Your task to perform on an android device: open app "Firefox Browser" (install if not already installed) Image 0: 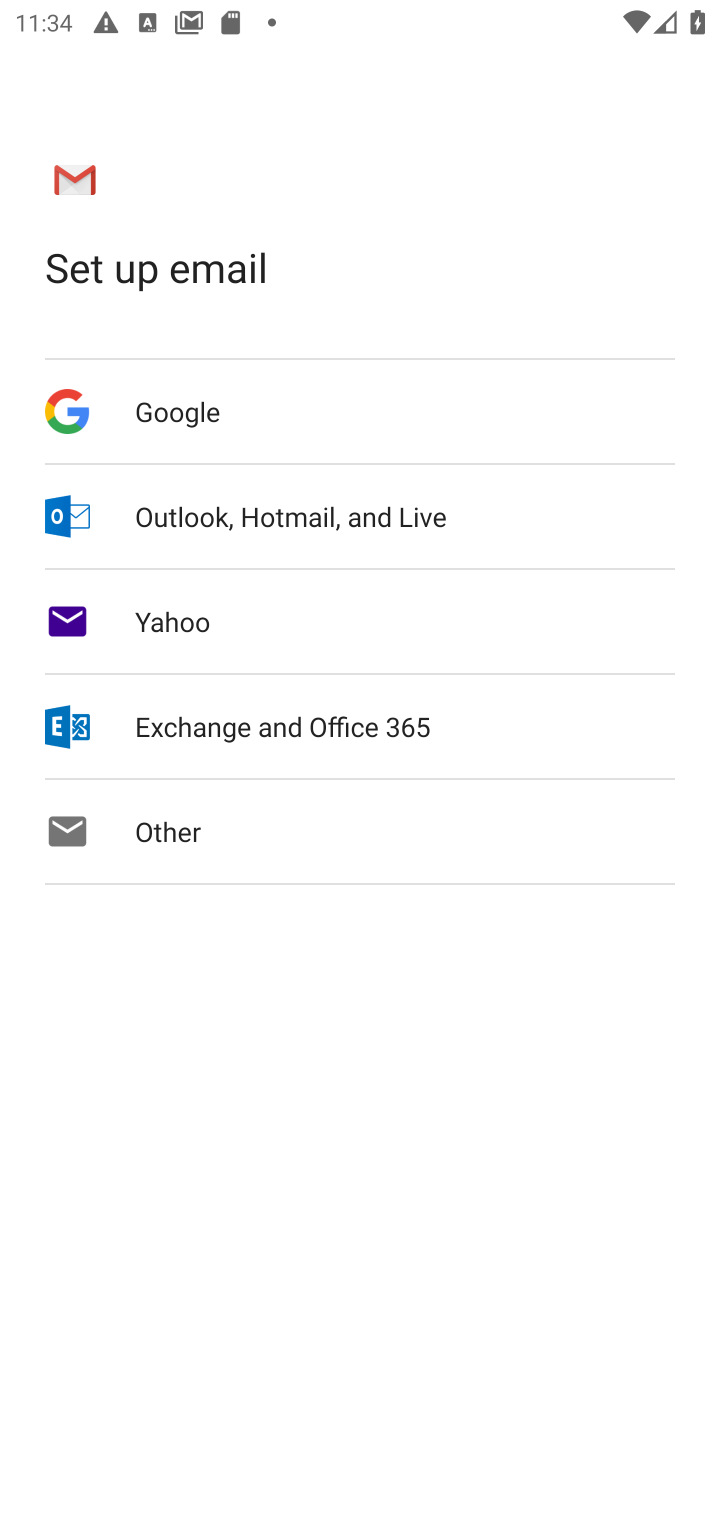
Step 0: press home button
Your task to perform on an android device: open app "Firefox Browser" (install if not already installed) Image 1: 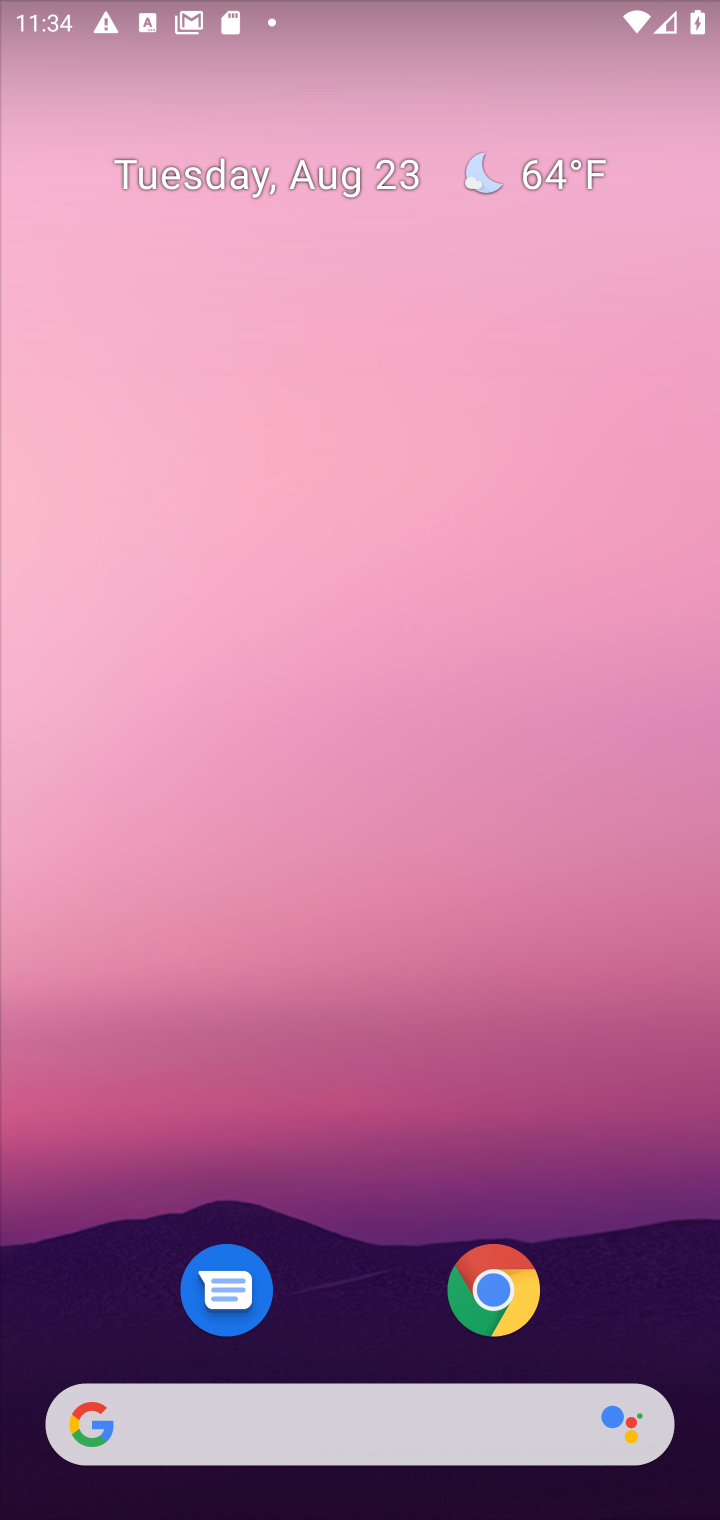
Step 1: drag from (338, 825) to (342, 10)
Your task to perform on an android device: open app "Firefox Browser" (install if not already installed) Image 2: 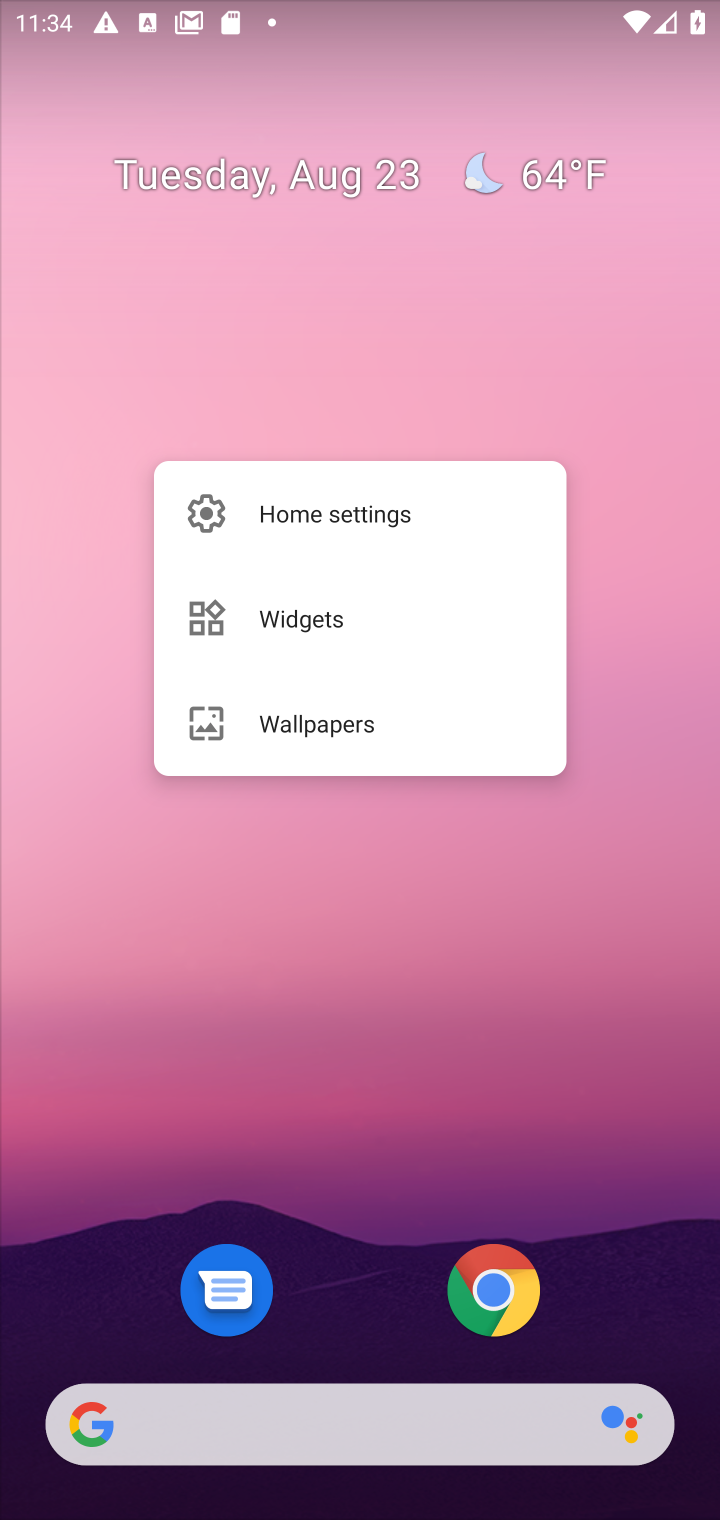
Step 2: click (463, 972)
Your task to perform on an android device: open app "Firefox Browser" (install if not already installed) Image 3: 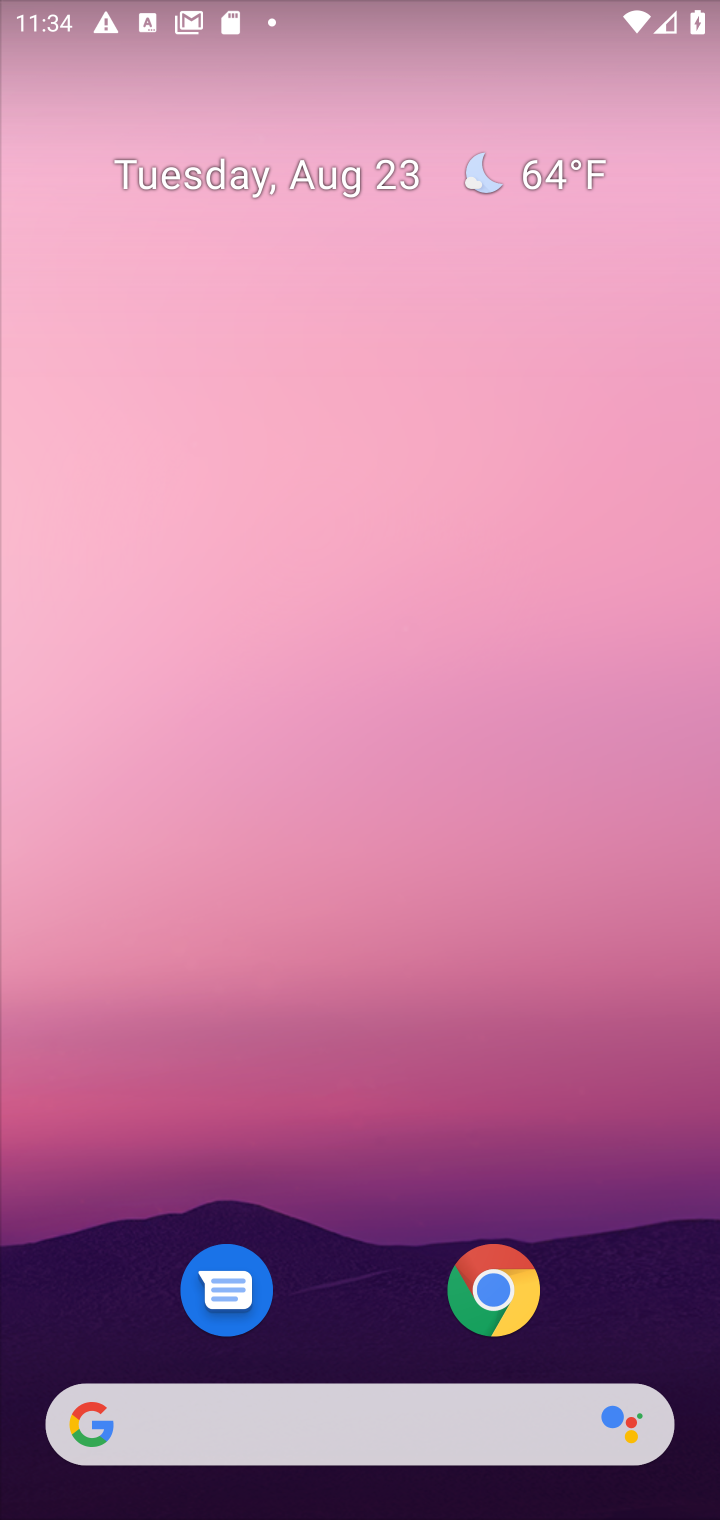
Step 3: drag from (372, 1248) to (399, 7)
Your task to perform on an android device: open app "Firefox Browser" (install if not already installed) Image 4: 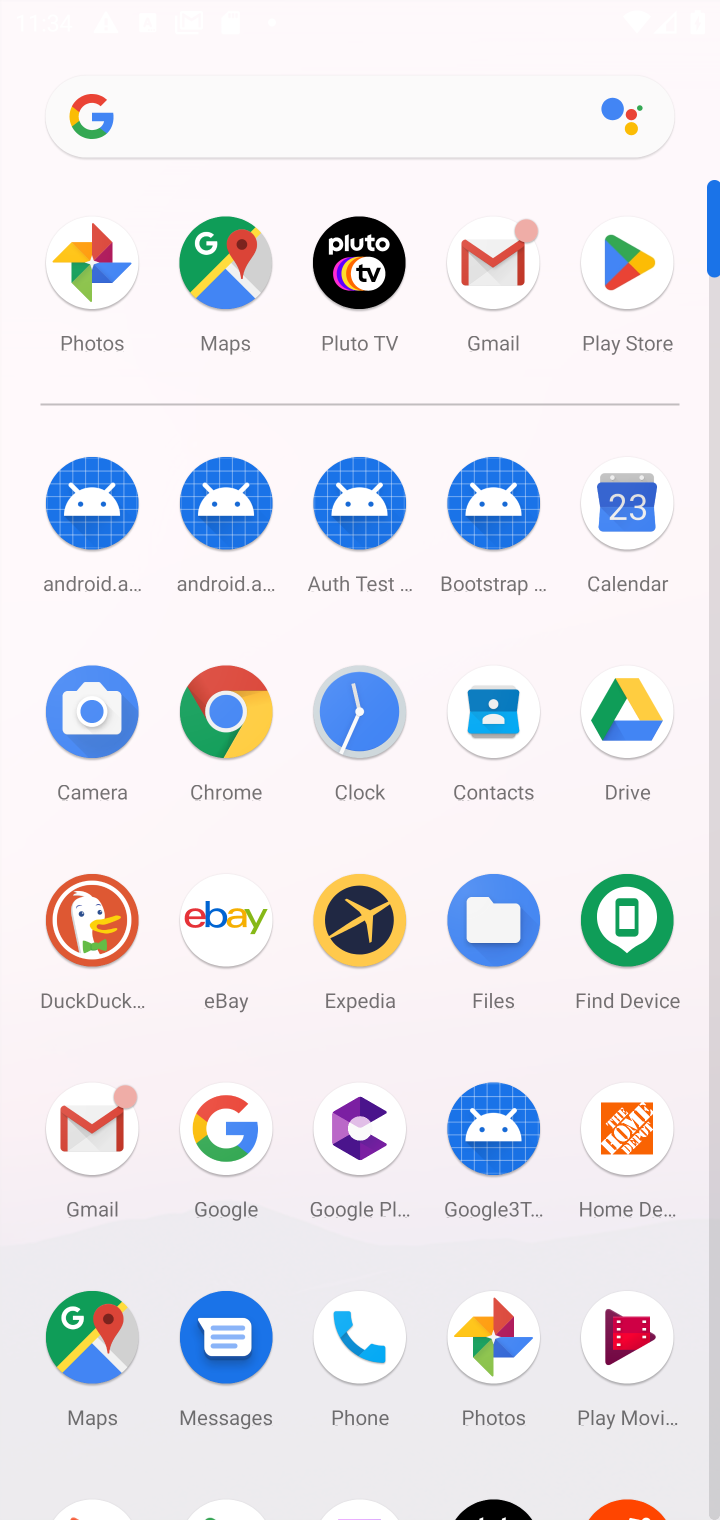
Step 4: click (619, 266)
Your task to perform on an android device: open app "Firefox Browser" (install if not already installed) Image 5: 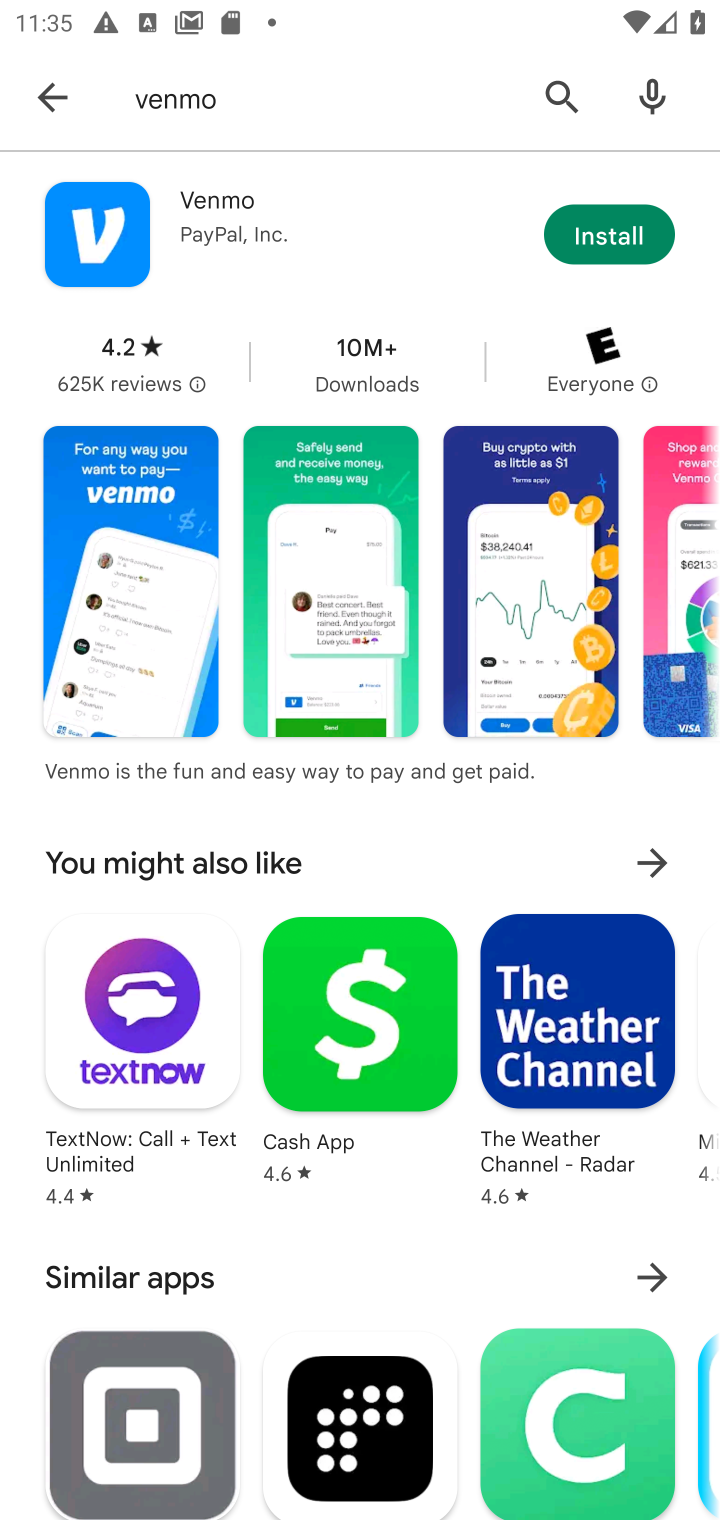
Step 5: click (555, 84)
Your task to perform on an android device: open app "Firefox Browser" (install if not already installed) Image 6: 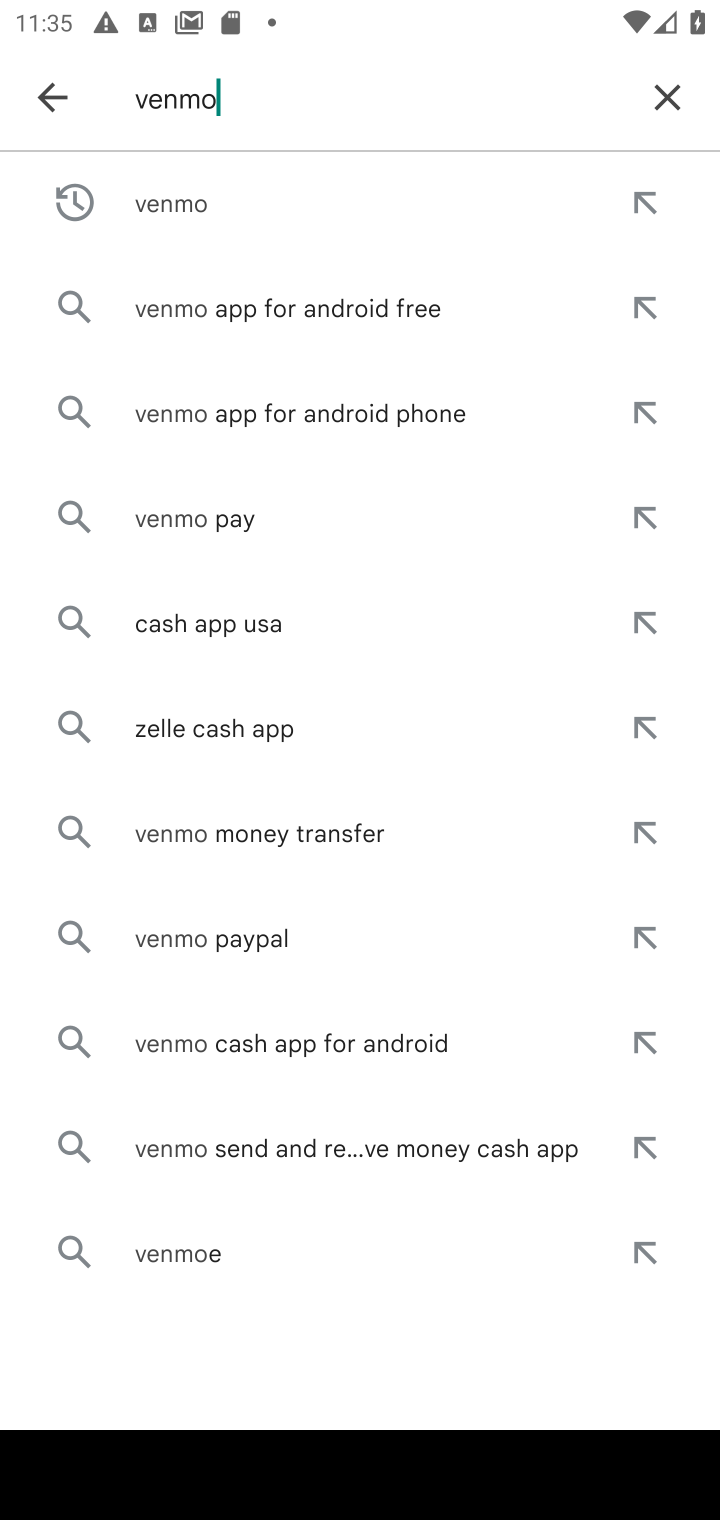
Step 6: click (655, 87)
Your task to perform on an android device: open app "Firefox Browser" (install if not already installed) Image 7: 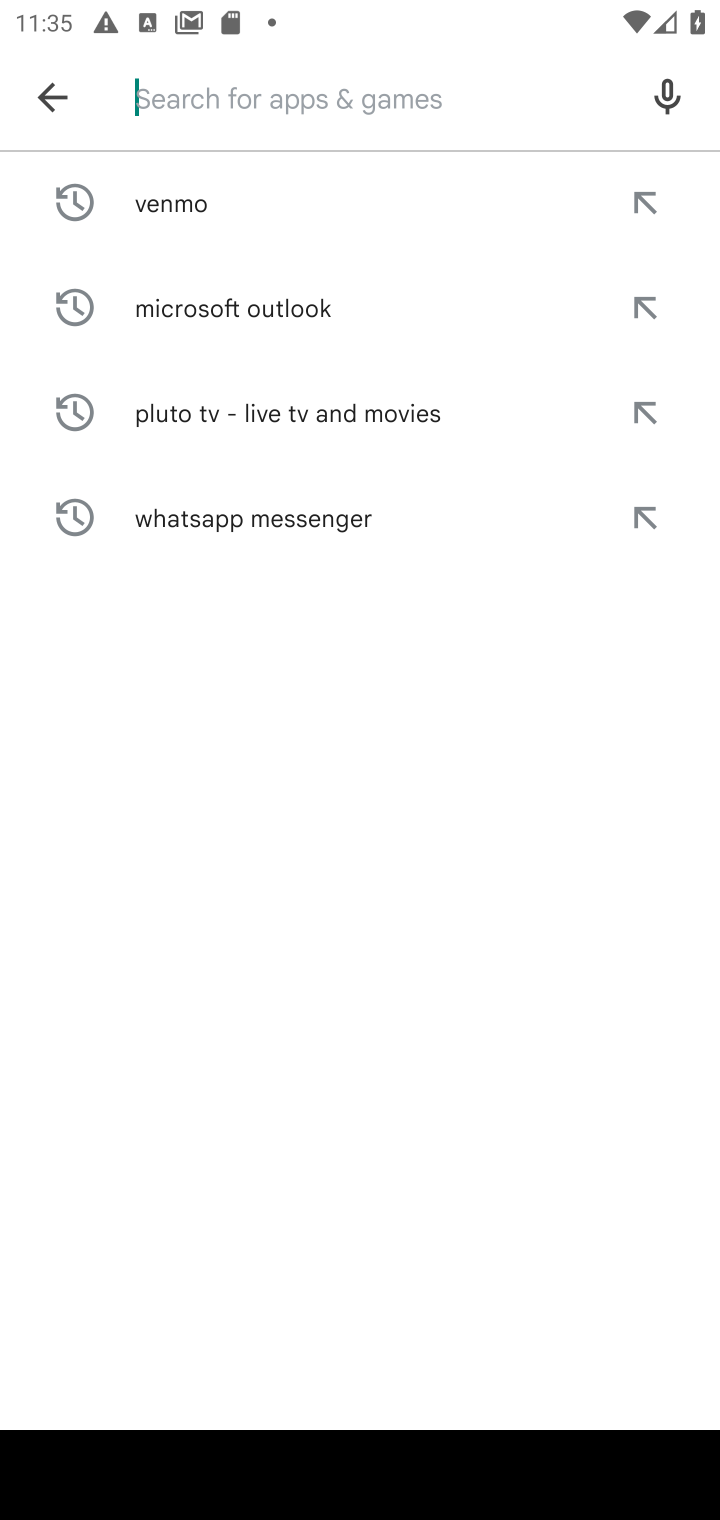
Step 7: type "Firefox Browser"
Your task to perform on an android device: open app "Firefox Browser" (install if not already installed) Image 8: 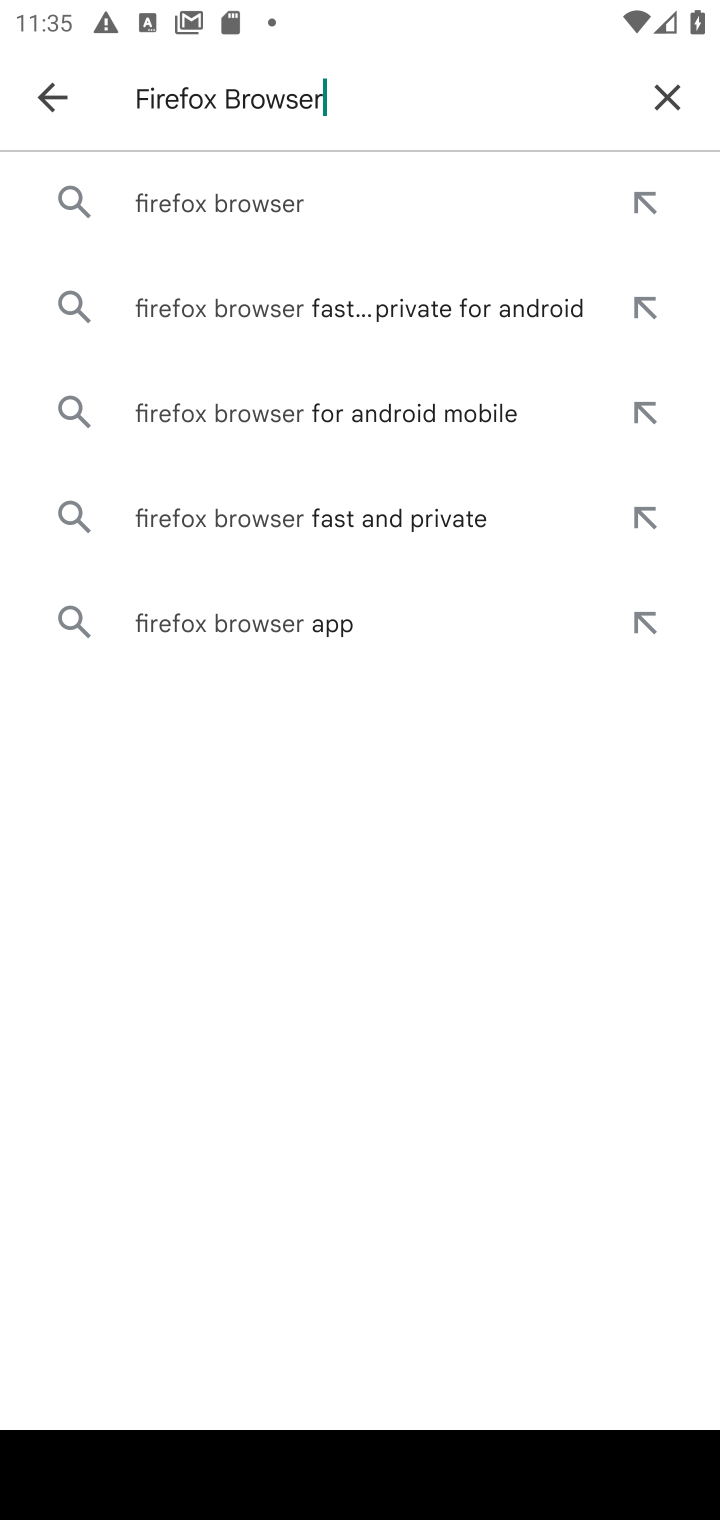
Step 8: click (269, 201)
Your task to perform on an android device: open app "Firefox Browser" (install if not already installed) Image 9: 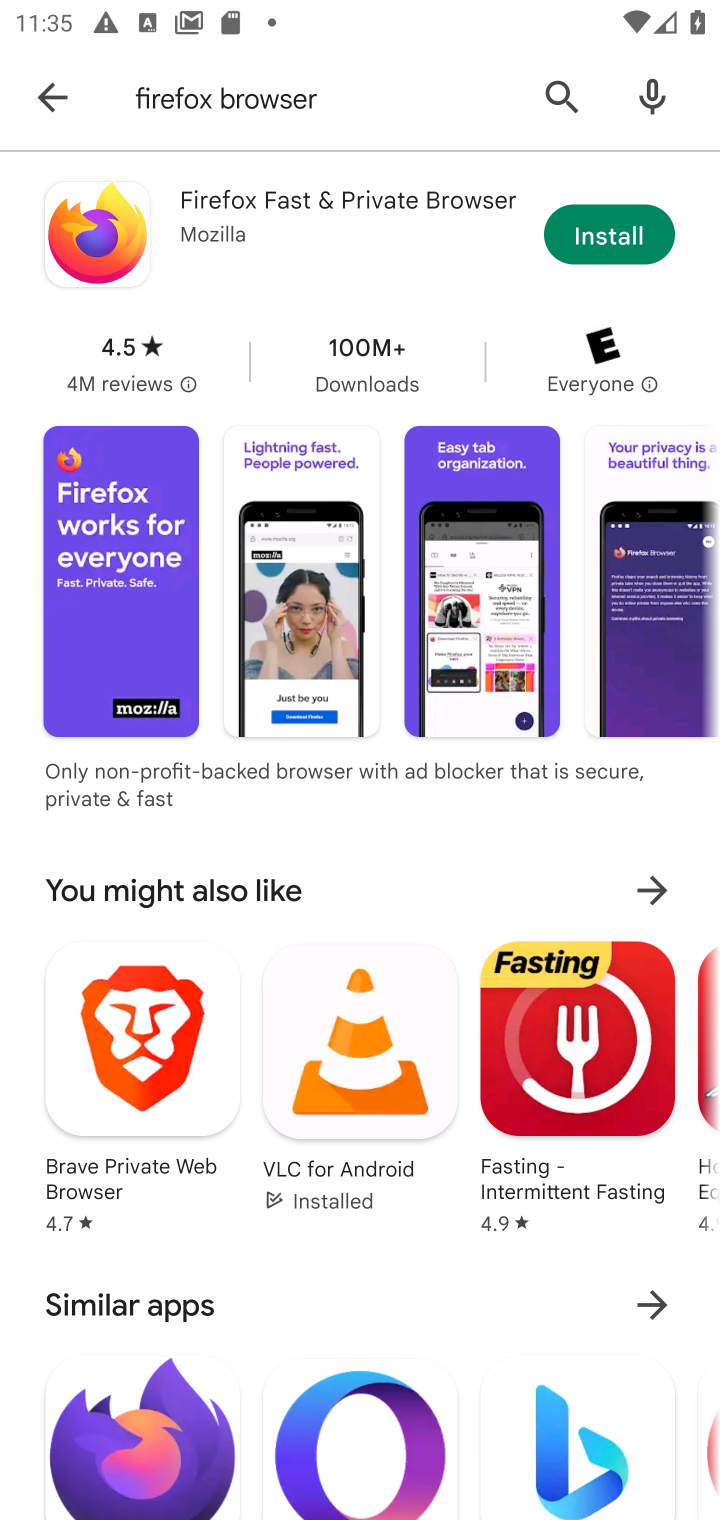
Step 9: click (631, 226)
Your task to perform on an android device: open app "Firefox Browser" (install if not already installed) Image 10: 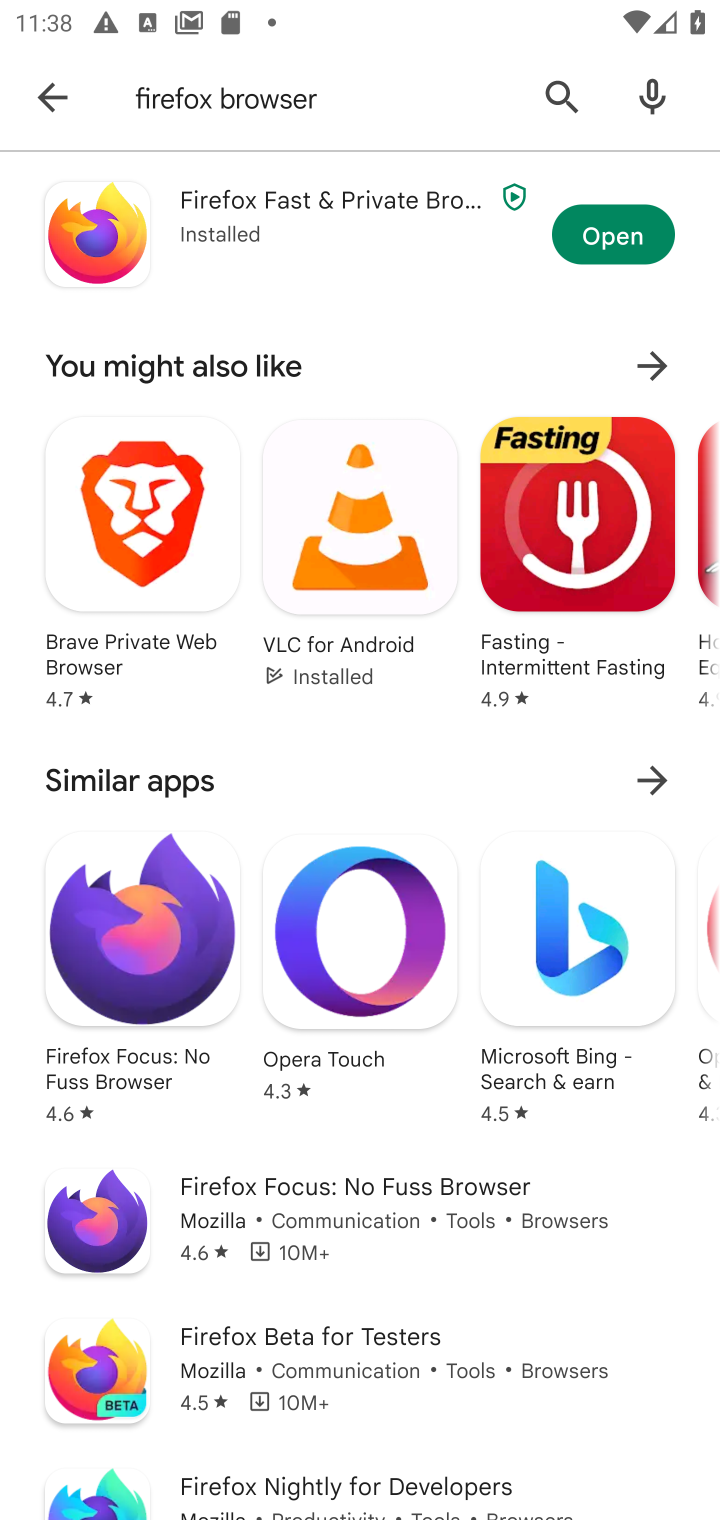
Step 10: click (630, 244)
Your task to perform on an android device: open app "Firefox Browser" (install if not already installed) Image 11: 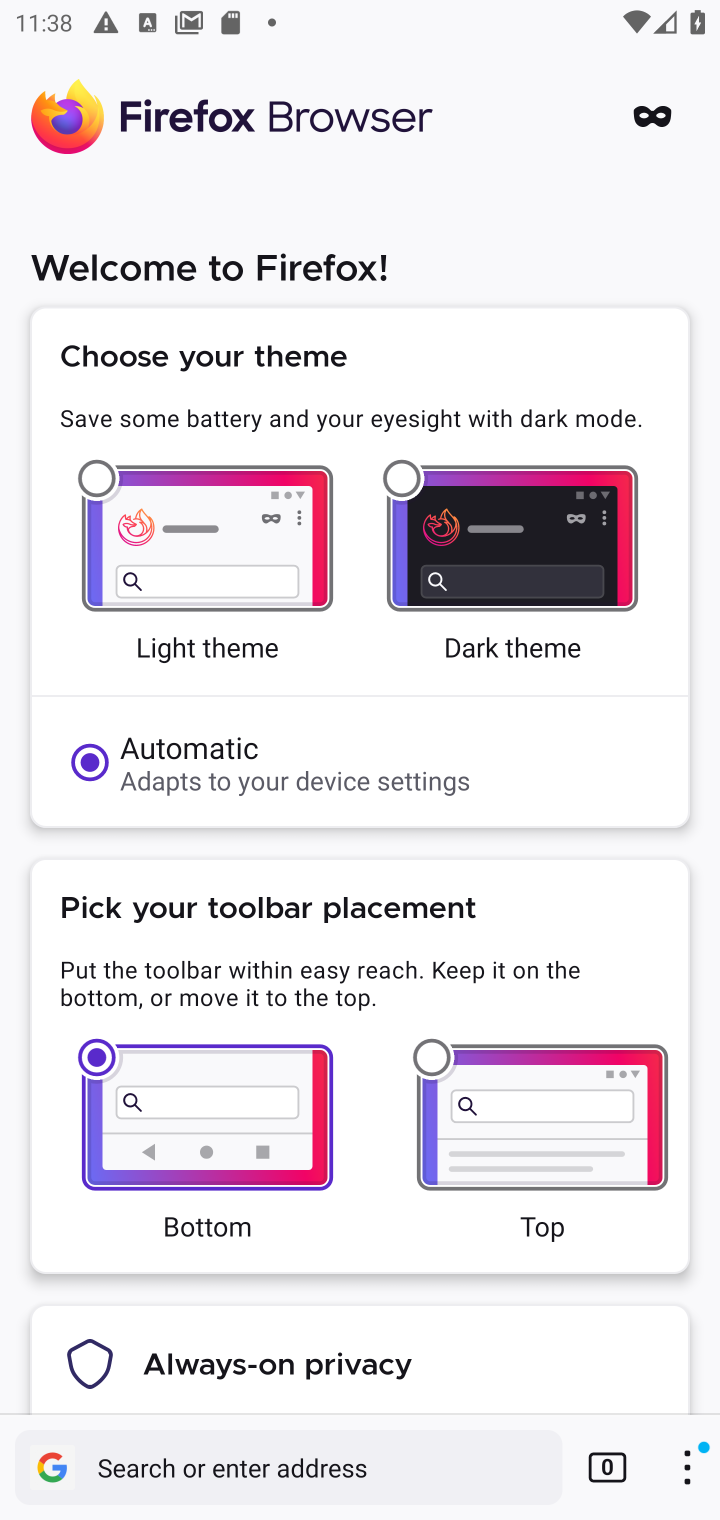
Step 11: task complete